Your task to perform on an android device: Open Google Image 0: 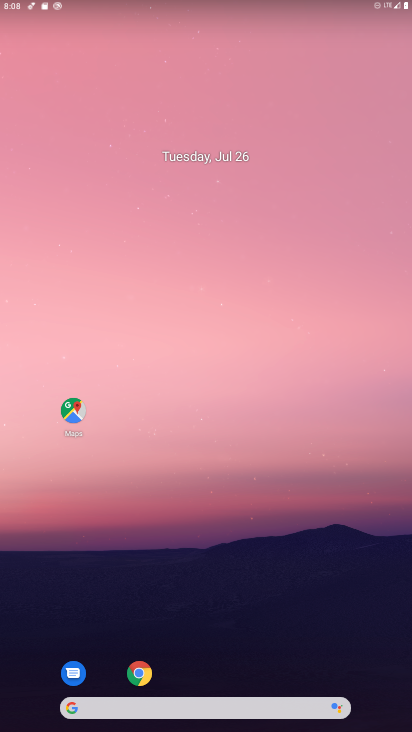
Step 0: drag from (314, 659) to (131, 59)
Your task to perform on an android device: Open Google Image 1: 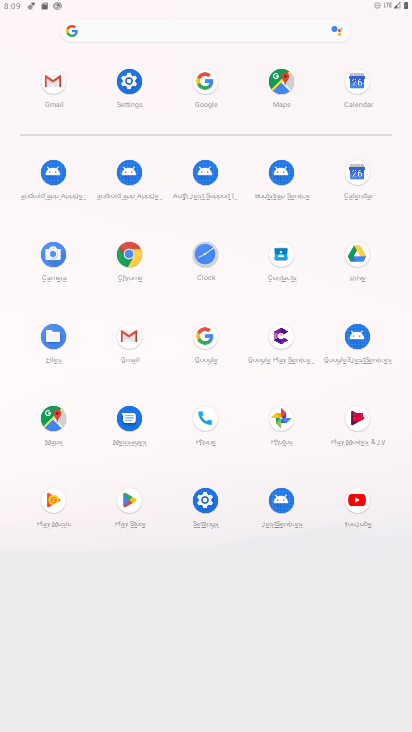
Step 1: click (199, 352)
Your task to perform on an android device: Open Google Image 2: 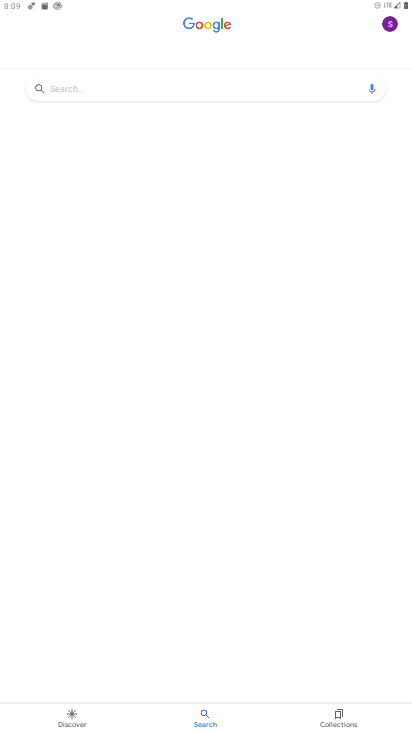
Step 2: task complete